Your task to perform on an android device: turn on sleep mode Image 0: 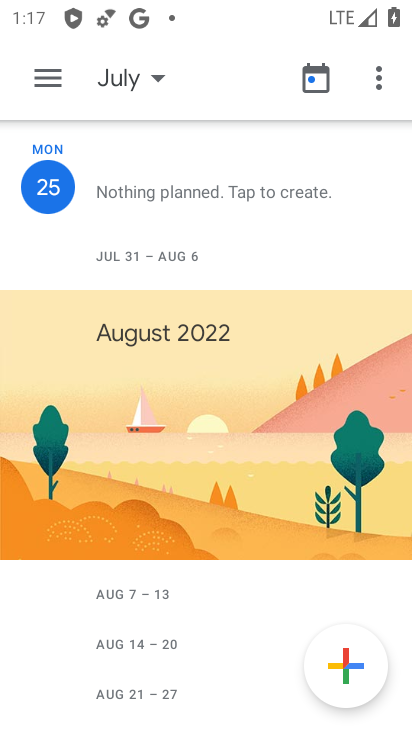
Step 0: press back button
Your task to perform on an android device: turn on sleep mode Image 1: 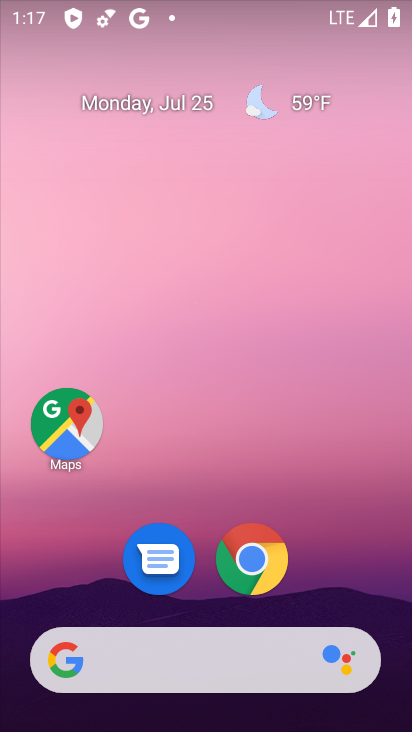
Step 1: drag from (15, 596) to (213, 5)
Your task to perform on an android device: turn on sleep mode Image 2: 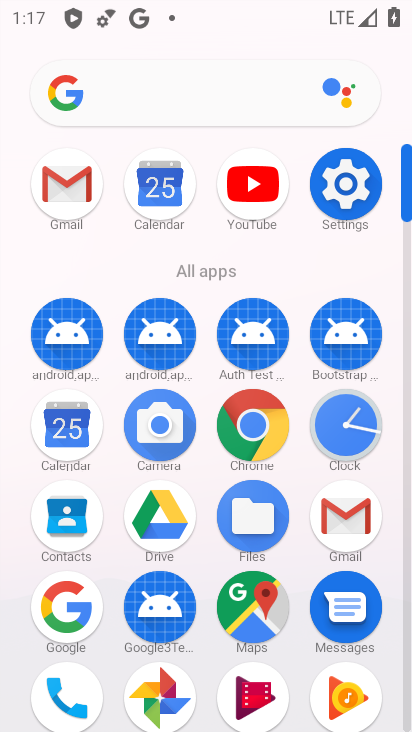
Step 2: click (346, 188)
Your task to perform on an android device: turn on sleep mode Image 3: 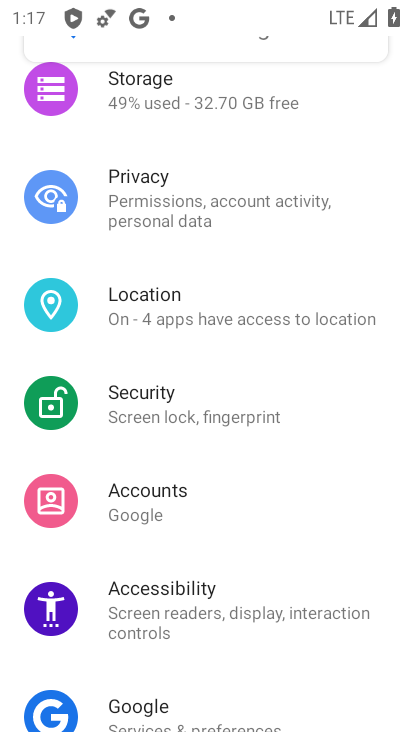
Step 3: drag from (264, 248) to (209, 724)
Your task to perform on an android device: turn on sleep mode Image 4: 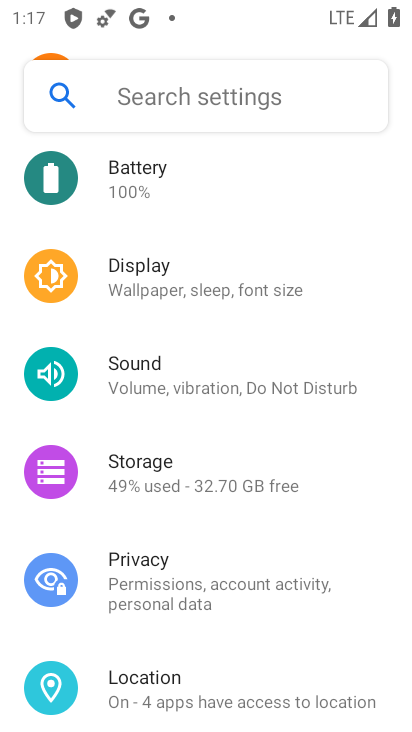
Step 4: click (162, 88)
Your task to perform on an android device: turn on sleep mode Image 5: 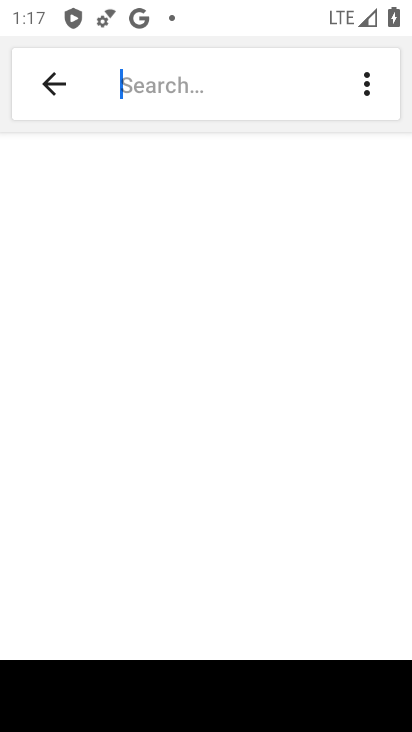
Step 5: type "sleep mode "
Your task to perform on an android device: turn on sleep mode Image 6: 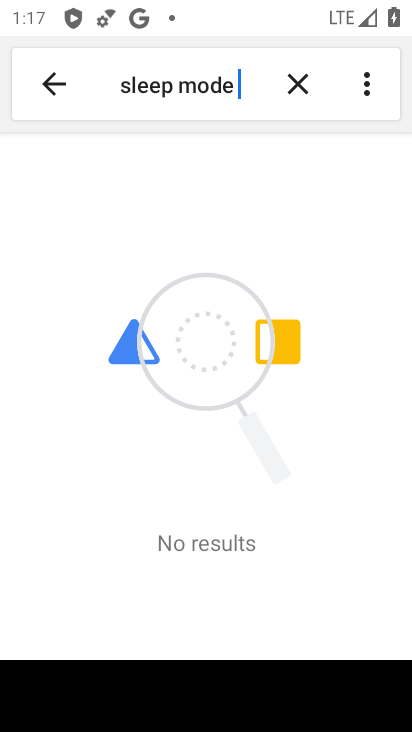
Step 6: task complete